Your task to perform on an android device: turn off smart reply in the gmail app Image 0: 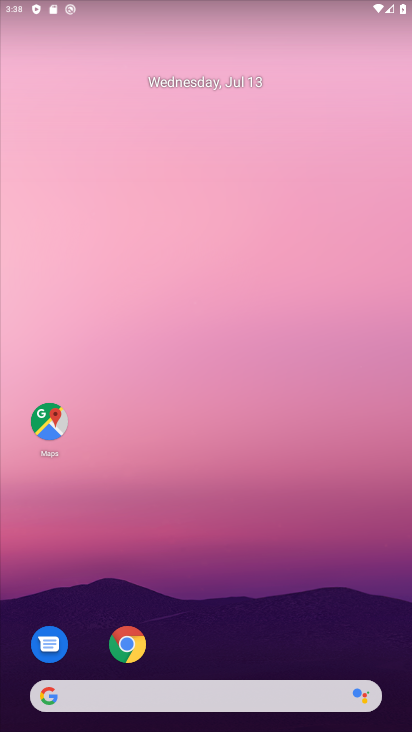
Step 0: drag from (247, 491) to (271, 22)
Your task to perform on an android device: turn off smart reply in the gmail app Image 1: 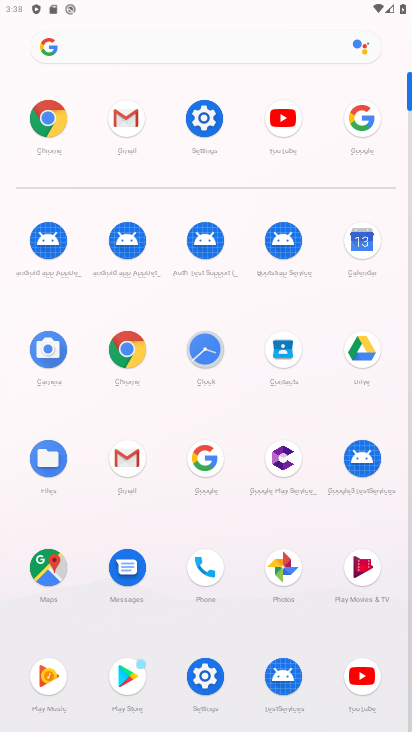
Step 1: click (133, 123)
Your task to perform on an android device: turn off smart reply in the gmail app Image 2: 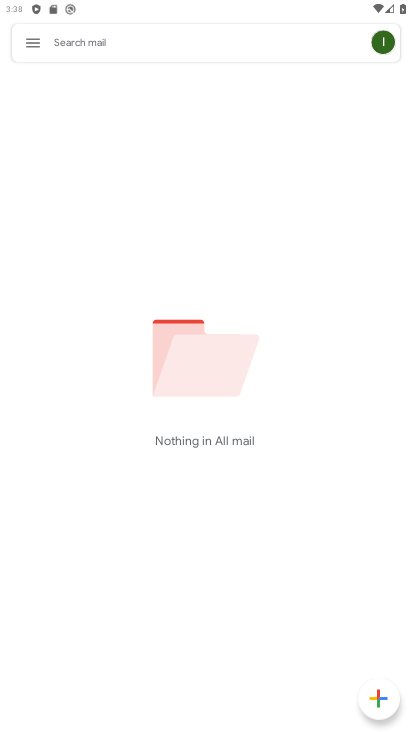
Step 2: click (38, 40)
Your task to perform on an android device: turn off smart reply in the gmail app Image 3: 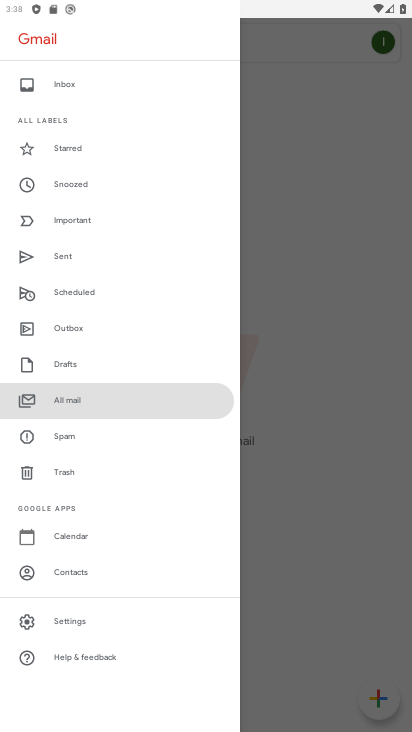
Step 3: click (64, 624)
Your task to perform on an android device: turn off smart reply in the gmail app Image 4: 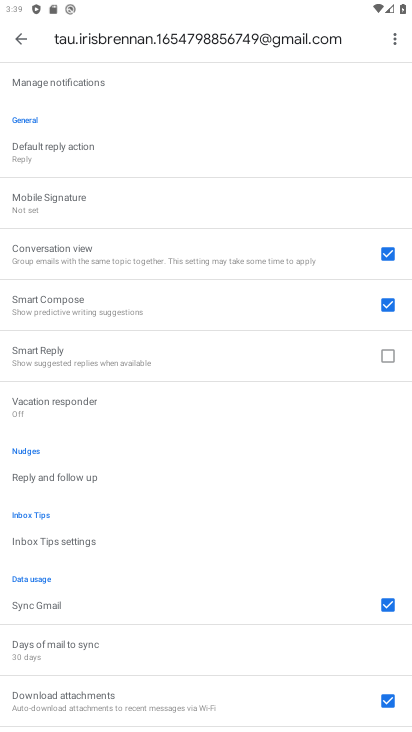
Step 4: task complete